Your task to perform on an android device: check battery use Image 0: 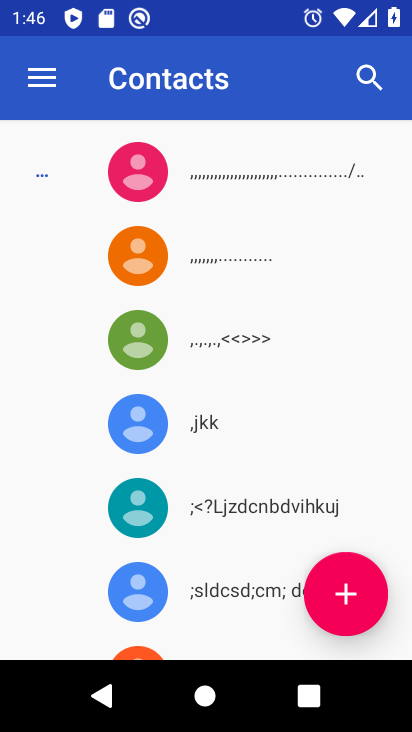
Step 0: press home button
Your task to perform on an android device: check battery use Image 1: 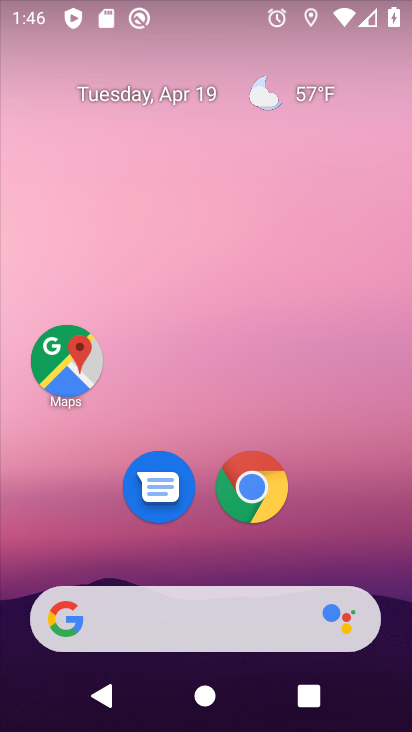
Step 1: drag from (379, 513) to (347, 50)
Your task to perform on an android device: check battery use Image 2: 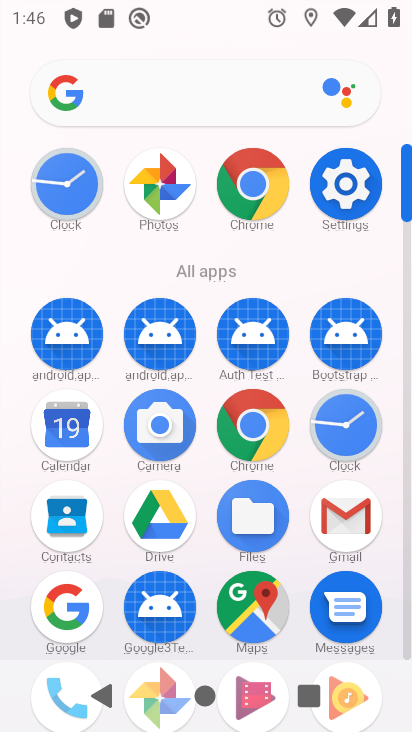
Step 2: click (340, 182)
Your task to perform on an android device: check battery use Image 3: 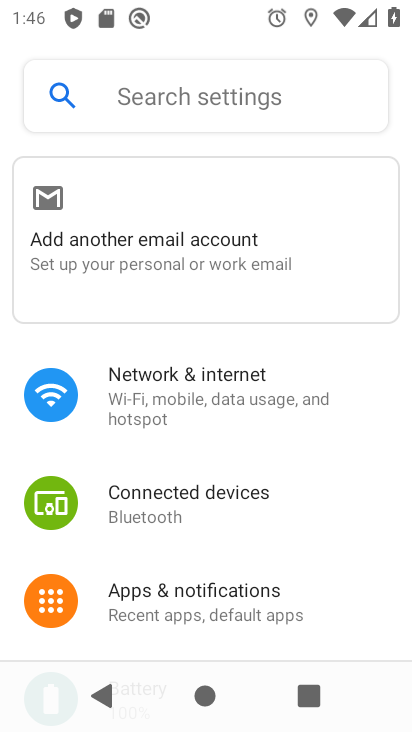
Step 3: drag from (343, 592) to (354, 228)
Your task to perform on an android device: check battery use Image 4: 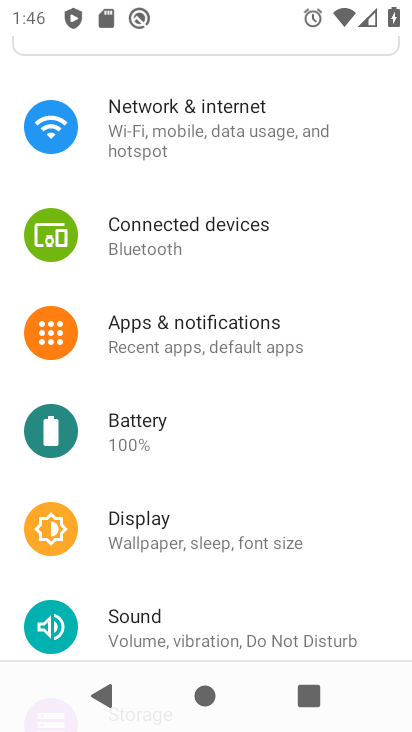
Step 4: click (162, 434)
Your task to perform on an android device: check battery use Image 5: 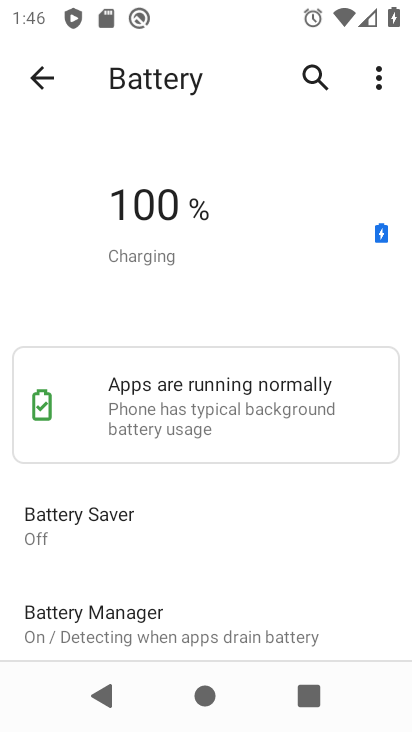
Step 5: task complete